Your task to perform on an android device: open chrome privacy settings Image 0: 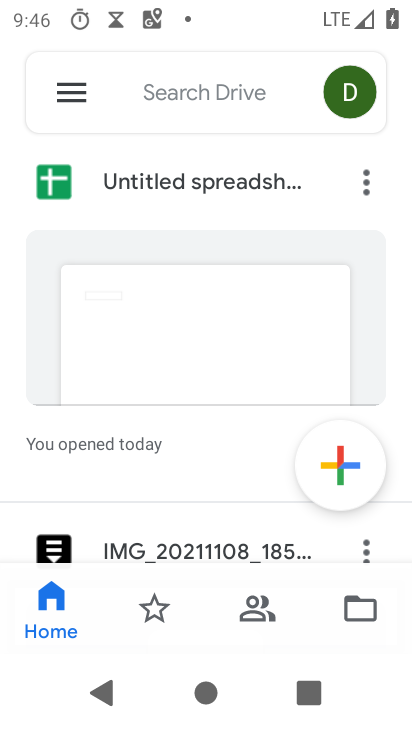
Step 0: press home button
Your task to perform on an android device: open chrome privacy settings Image 1: 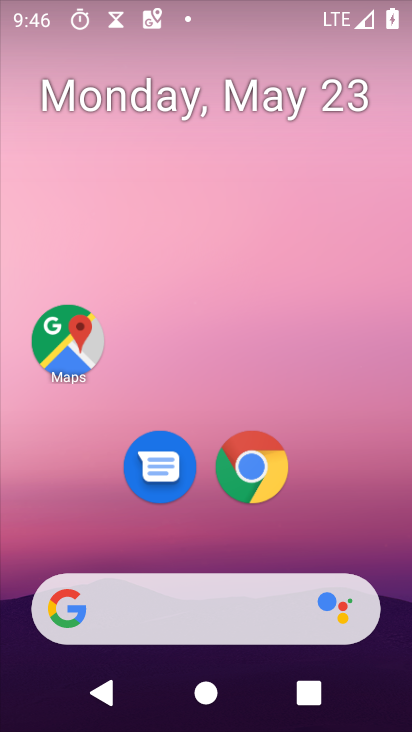
Step 1: click (251, 462)
Your task to perform on an android device: open chrome privacy settings Image 2: 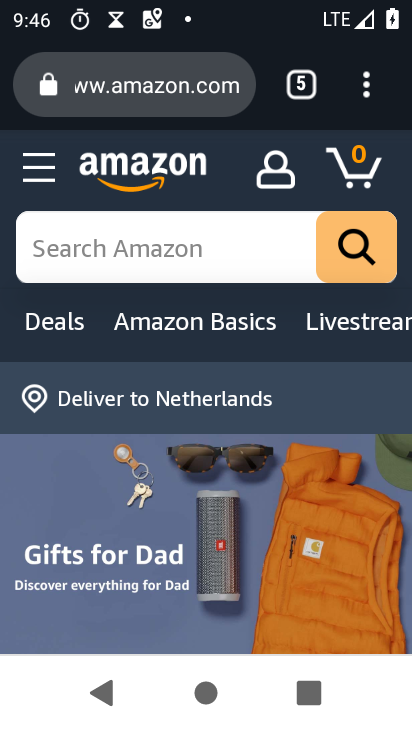
Step 2: click (357, 66)
Your task to perform on an android device: open chrome privacy settings Image 3: 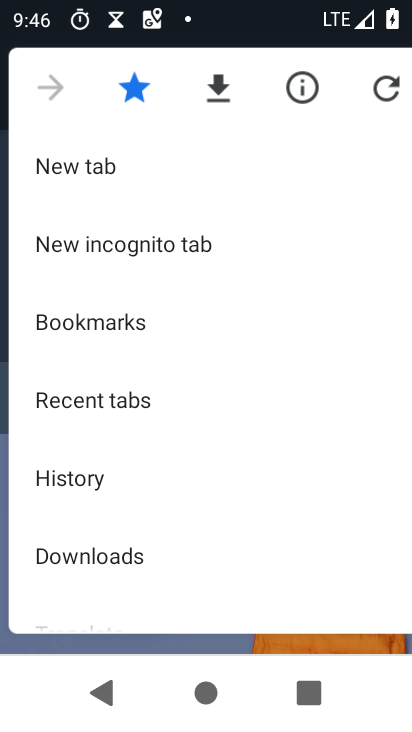
Step 3: drag from (163, 525) to (178, 138)
Your task to perform on an android device: open chrome privacy settings Image 4: 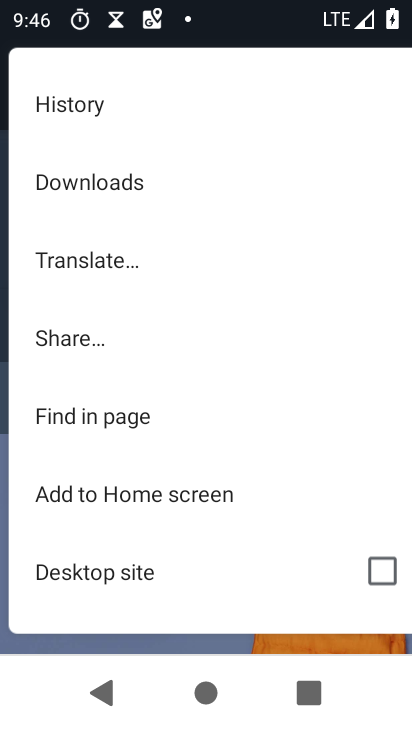
Step 4: drag from (241, 486) to (200, 135)
Your task to perform on an android device: open chrome privacy settings Image 5: 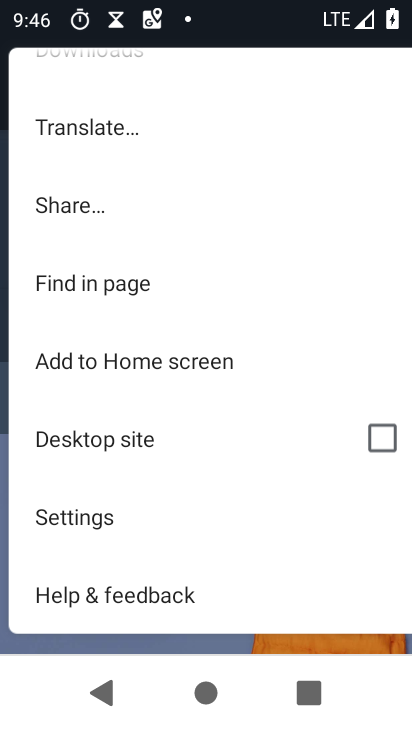
Step 5: click (177, 516)
Your task to perform on an android device: open chrome privacy settings Image 6: 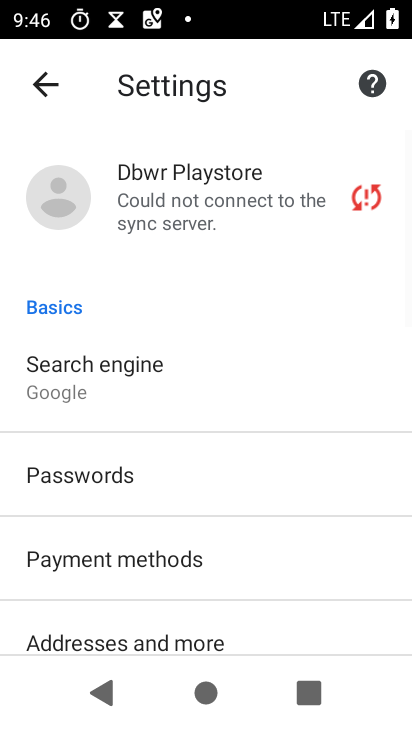
Step 6: drag from (224, 565) to (210, 337)
Your task to perform on an android device: open chrome privacy settings Image 7: 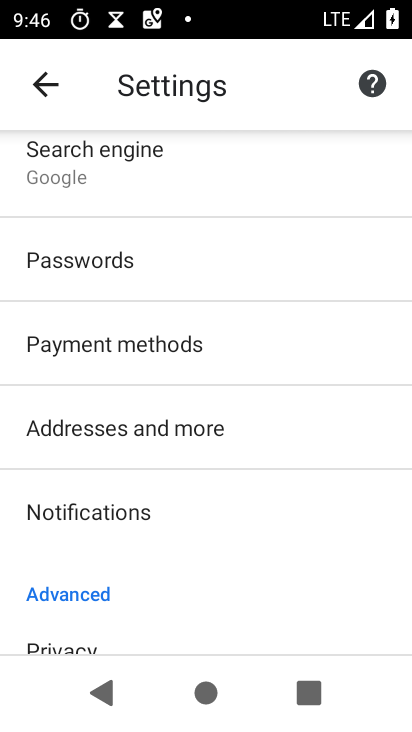
Step 7: drag from (149, 560) to (144, 345)
Your task to perform on an android device: open chrome privacy settings Image 8: 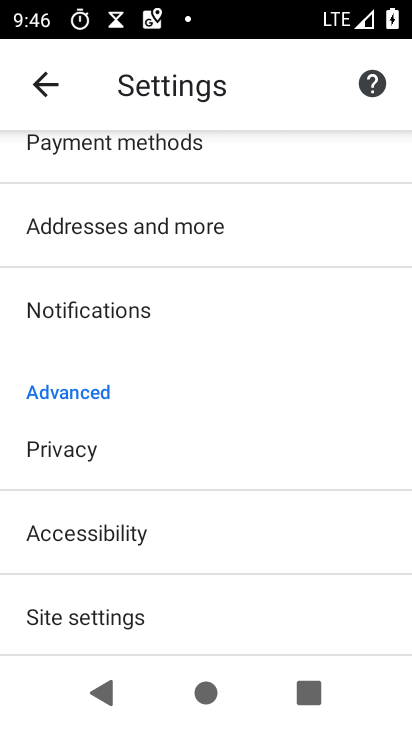
Step 8: click (120, 457)
Your task to perform on an android device: open chrome privacy settings Image 9: 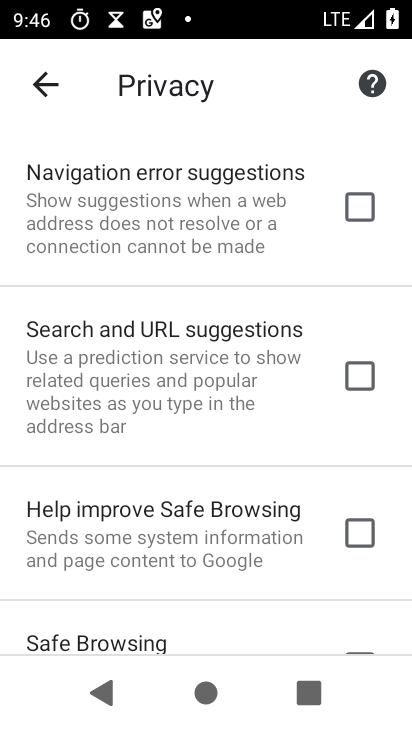
Step 9: task complete